Your task to perform on an android device: Go to Amazon Image 0: 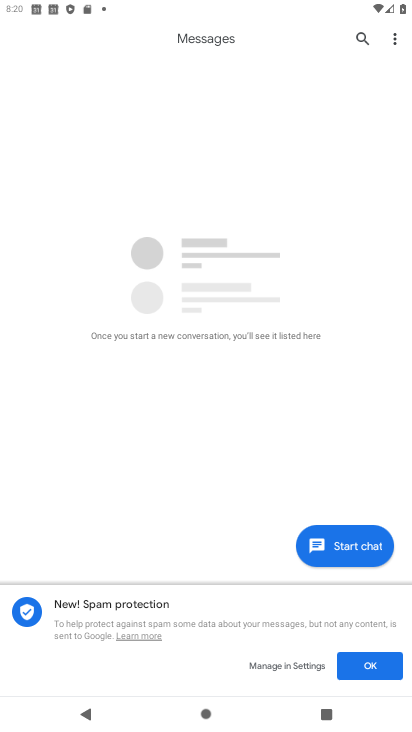
Step 0: press back button
Your task to perform on an android device: Go to Amazon Image 1: 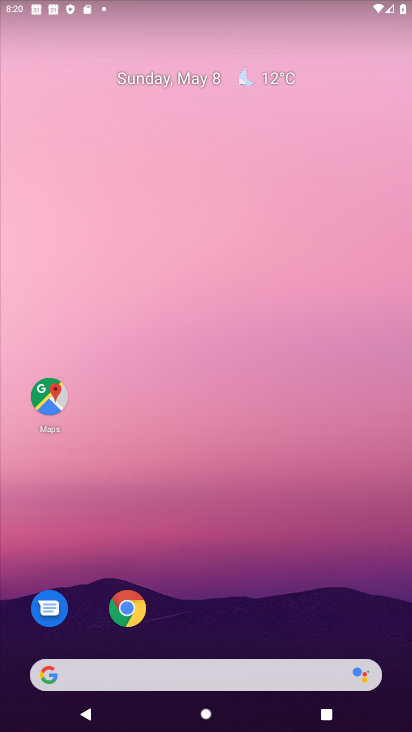
Step 1: drag from (238, 572) to (206, 17)
Your task to perform on an android device: Go to Amazon Image 2: 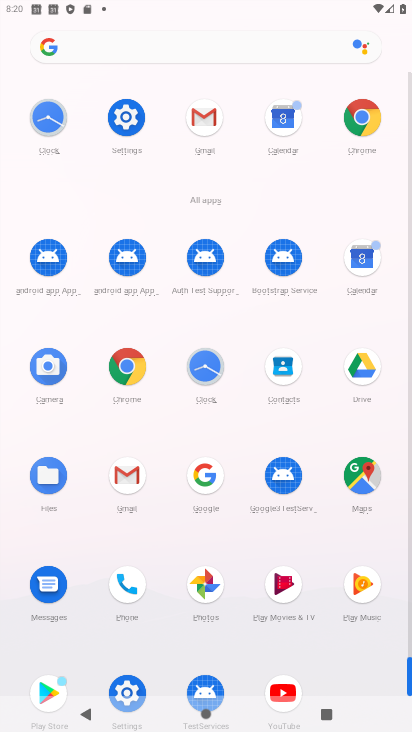
Step 2: drag from (13, 299) to (12, 192)
Your task to perform on an android device: Go to Amazon Image 3: 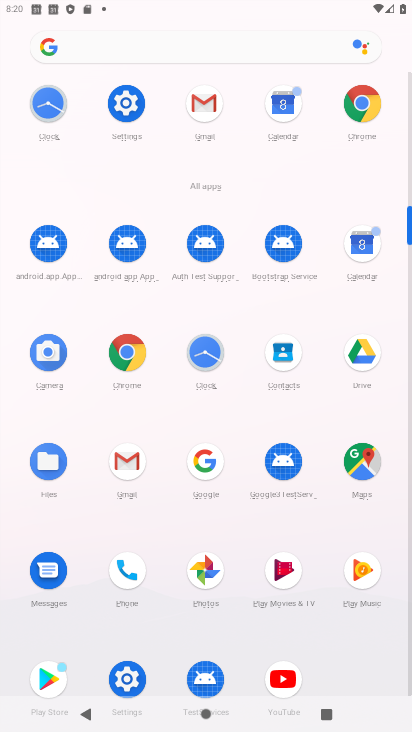
Step 3: drag from (24, 157) to (32, 423)
Your task to perform on an android device: Go to Amazon Image 4: 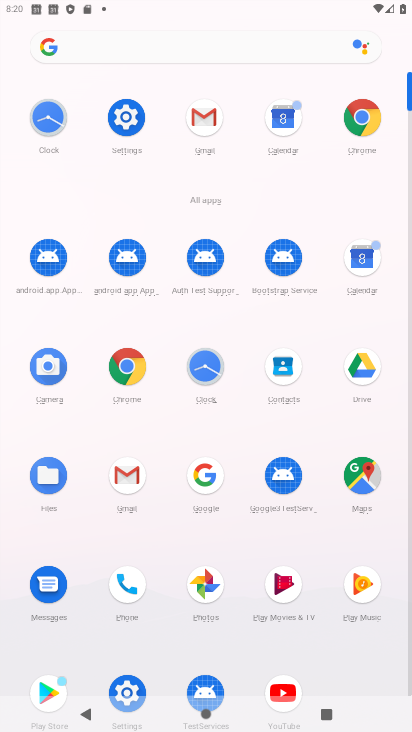
Step 4: click (128, 367)
Your task to perform on an android device: Go to Amazon Image 5: 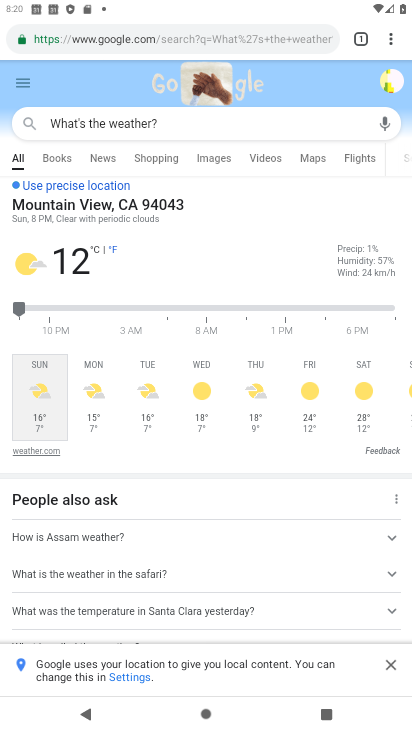
Step 5: click (155, 34)
Your task to perform on an android device: Go to Amazon Image 6: 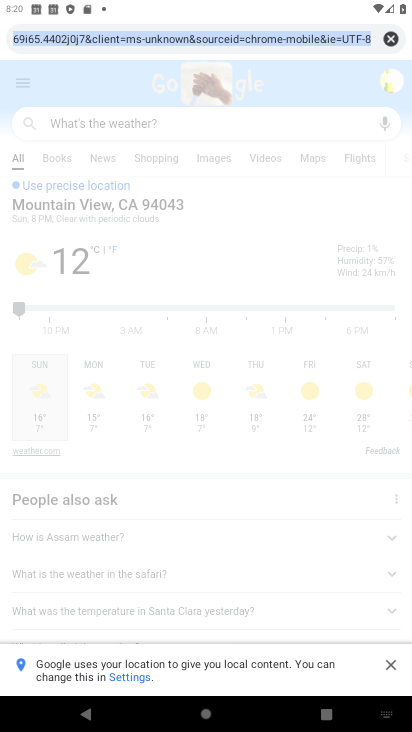
Step 6: click (388, 38)
Your task to perform on an android device: Go to Amazon Image 7: 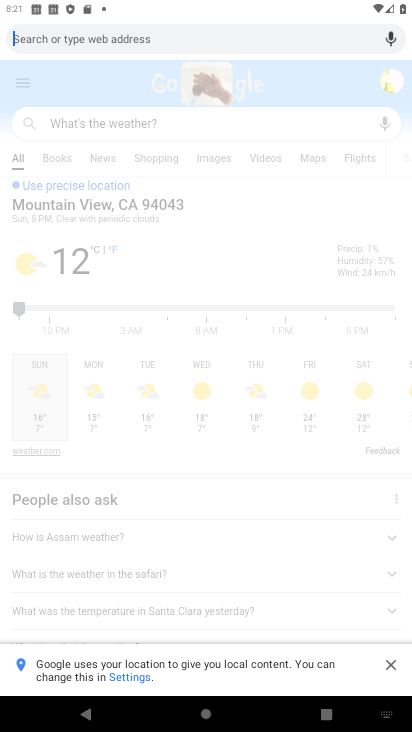
Step 7: type "Go to Amazon"
Your task to perform on an android device: Go to Amazon Image 8: 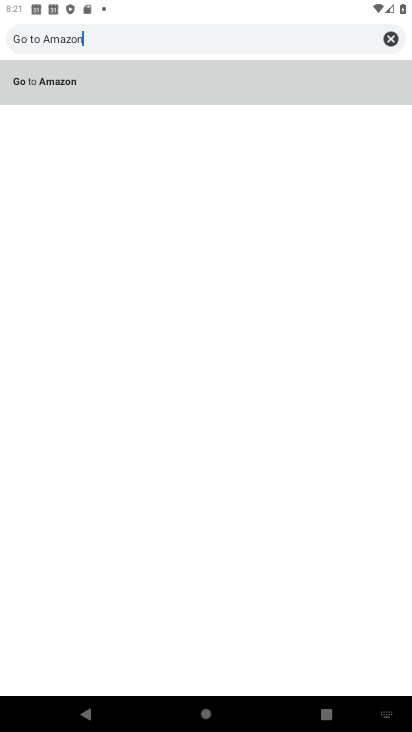
Step 8: click (75, 90)
Your task to perform on an android device: Go to Amazon Image 9: 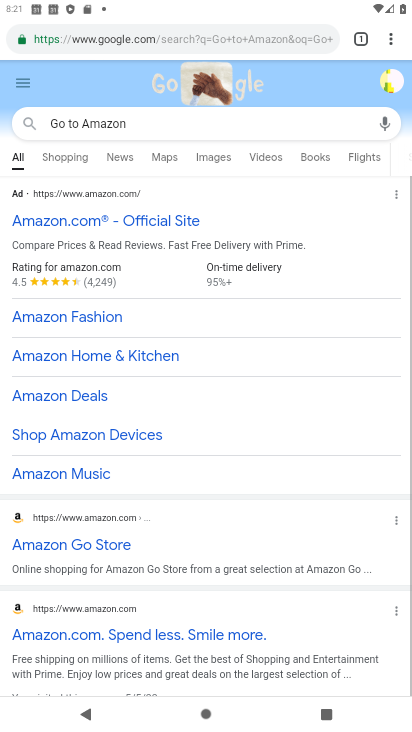
Step 9: click (97, 215)
Your task to perform on an android device: Go to Amazon Image 10: 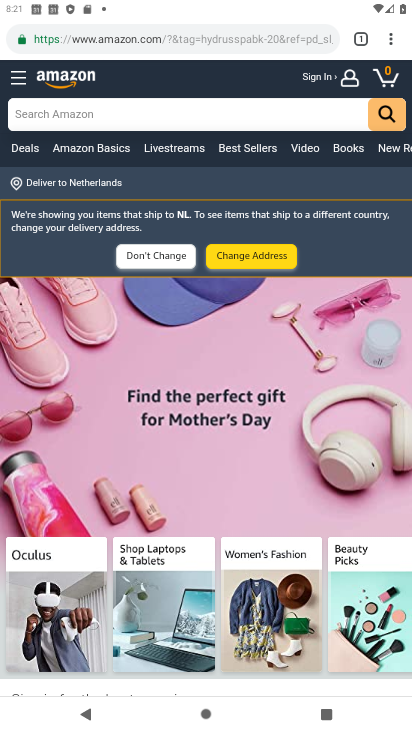
Step 10: task complete